Your task to perform on an android device: open app "Cash App" Image 0: 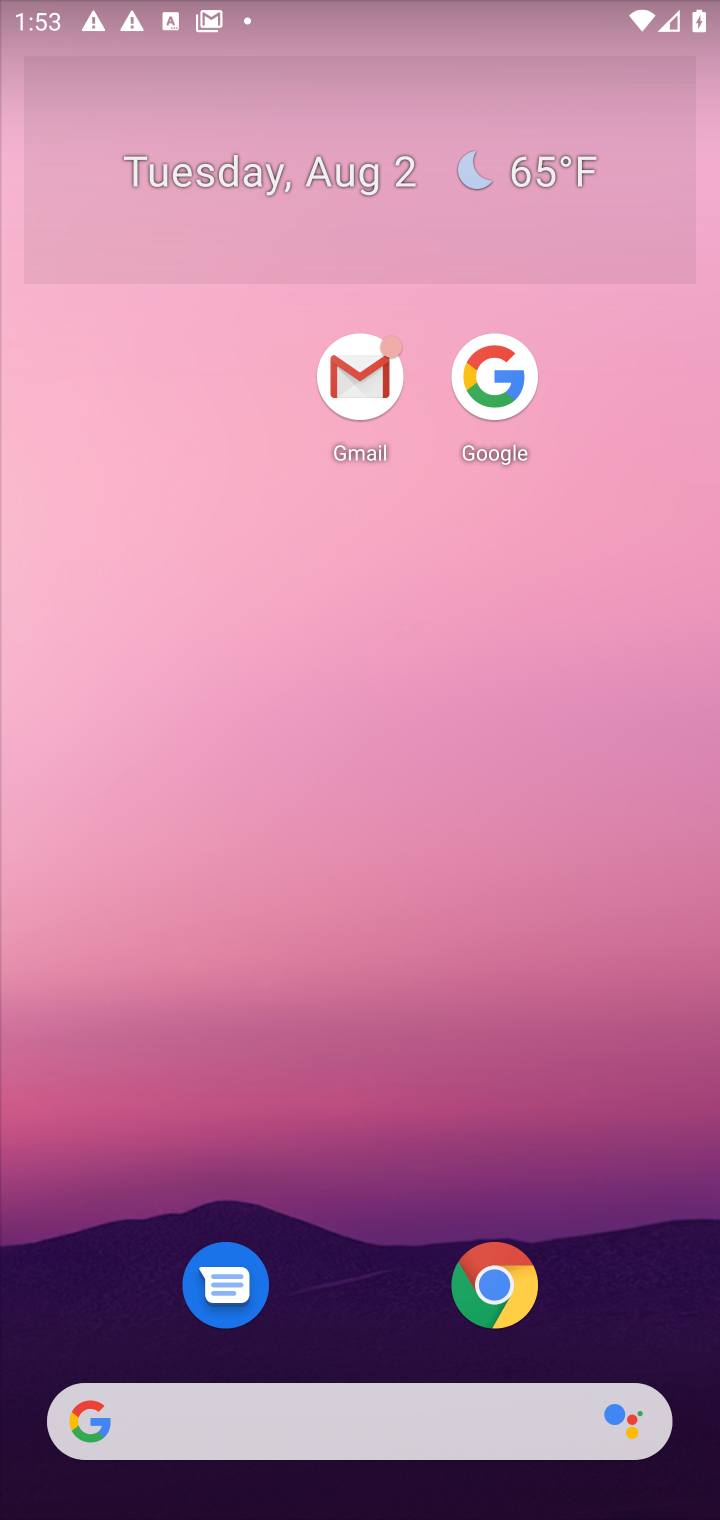
Step 0: drag from (655, 1305) to (439, 351)
Your task to perform on an android device: open app "Cash App" Image 1: 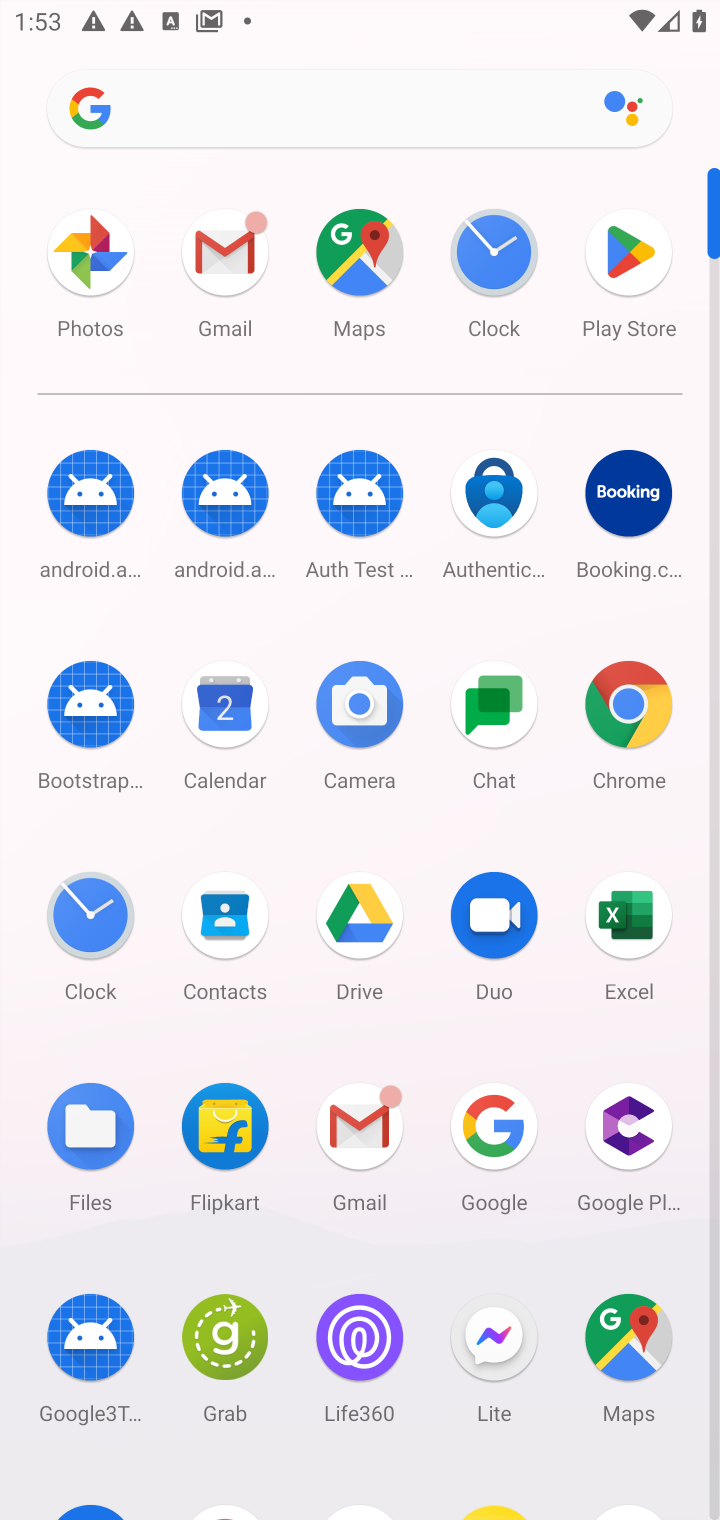
Step 1: drag from (287, 1234) to (341, 478)
Your task to perform on an android device: open app "Cash App" Image 2: 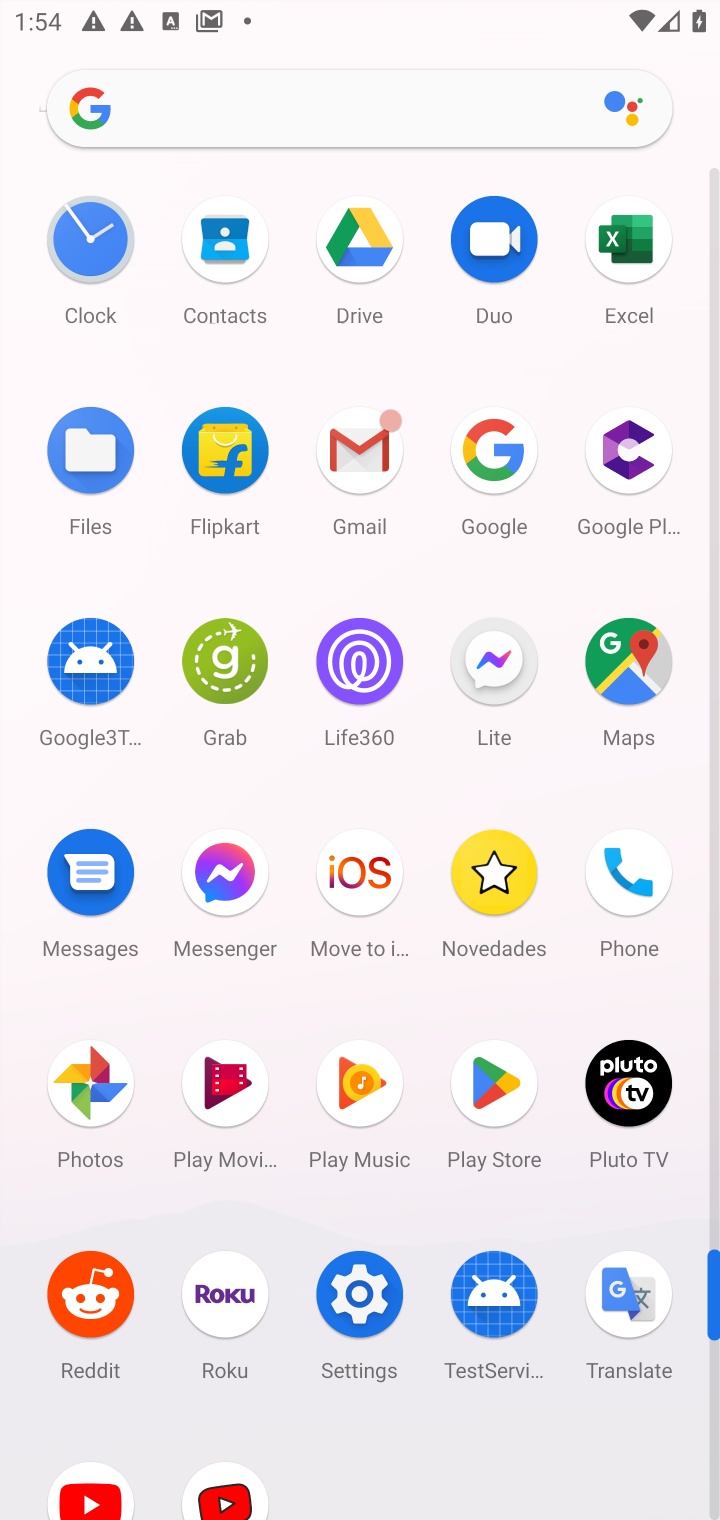
Step 2: click (481, 1070)
Your task to perform on an android device: open app "Cash App" Image 3: 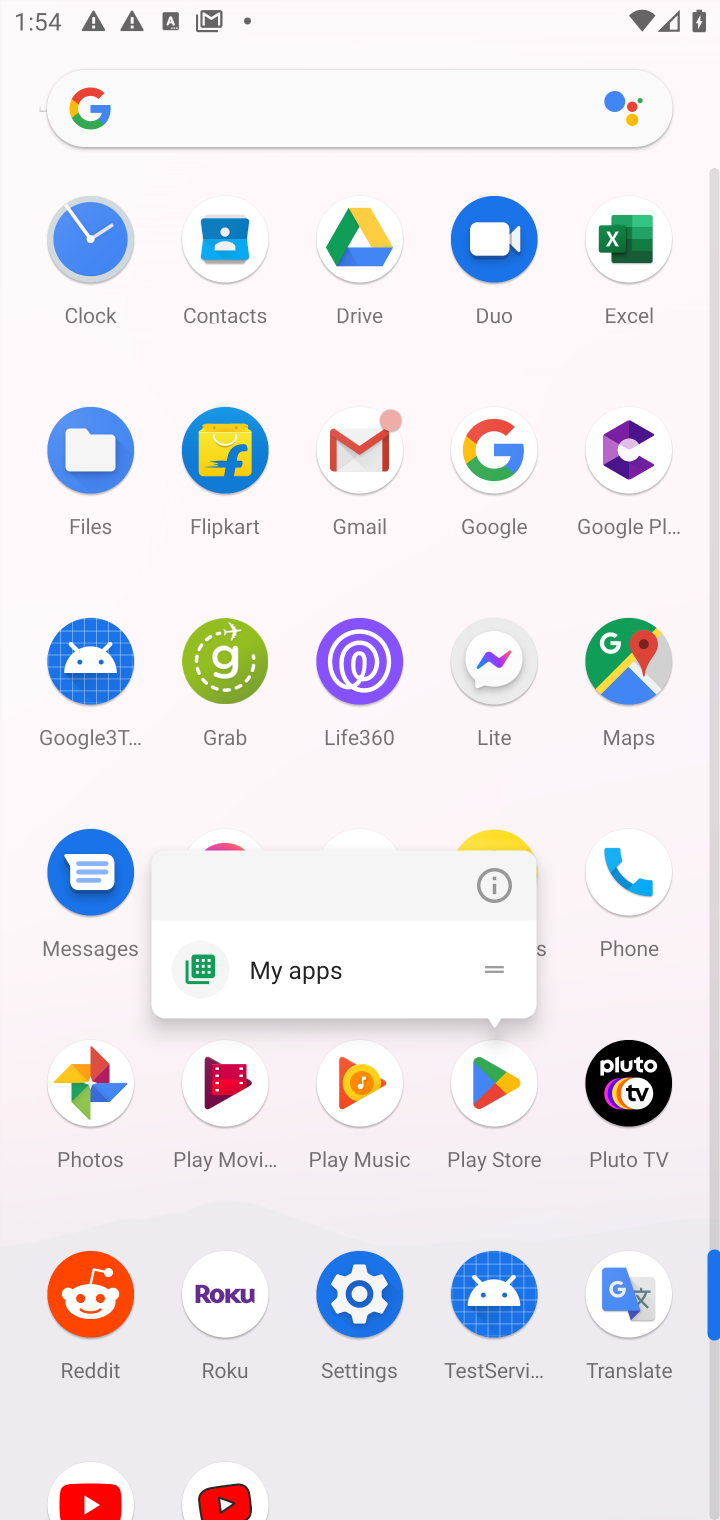
Step 3: click (472, 1079)
Your task to perform on an android device: open app "Cash App" Image 4: 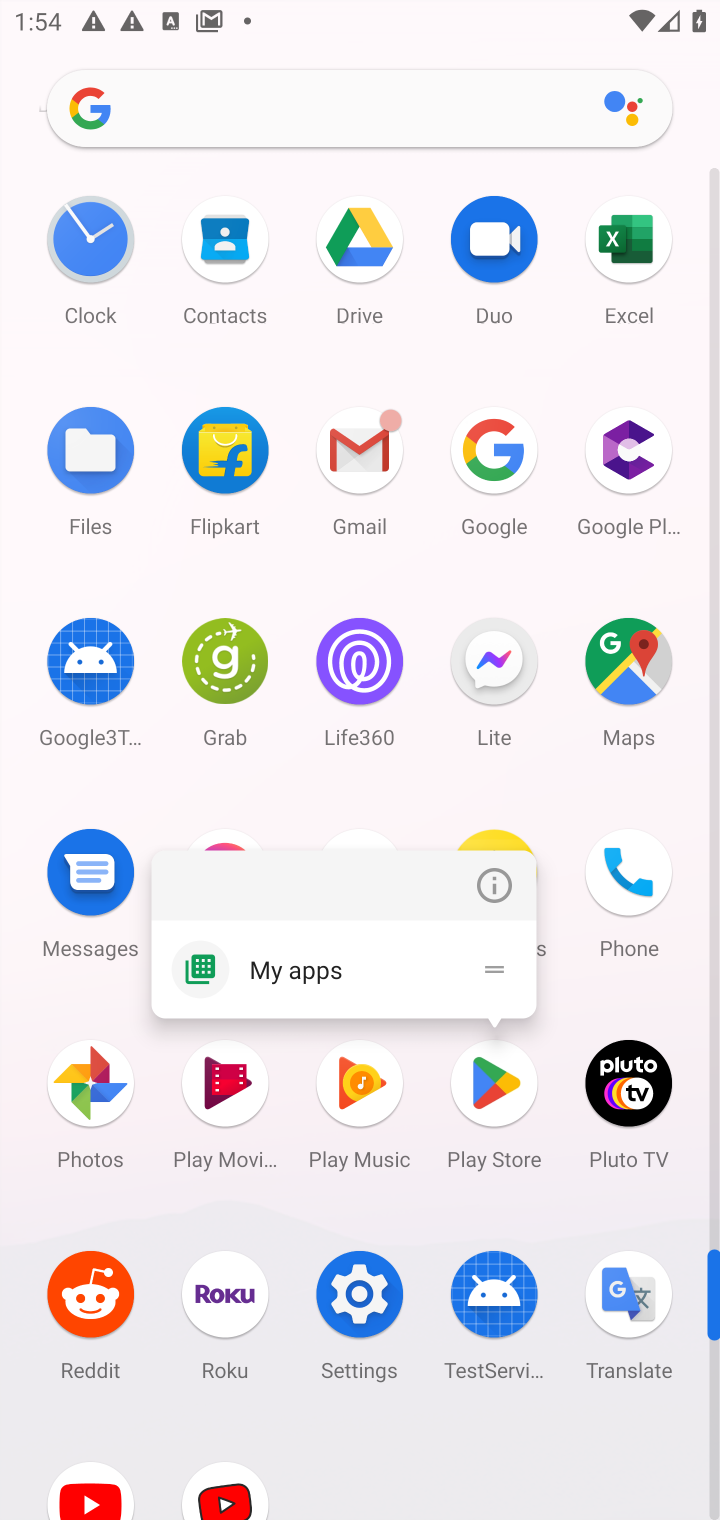
Step 4: click (492, 1088)
Your task to perform on an android device: open app "Cash App" Image 5: 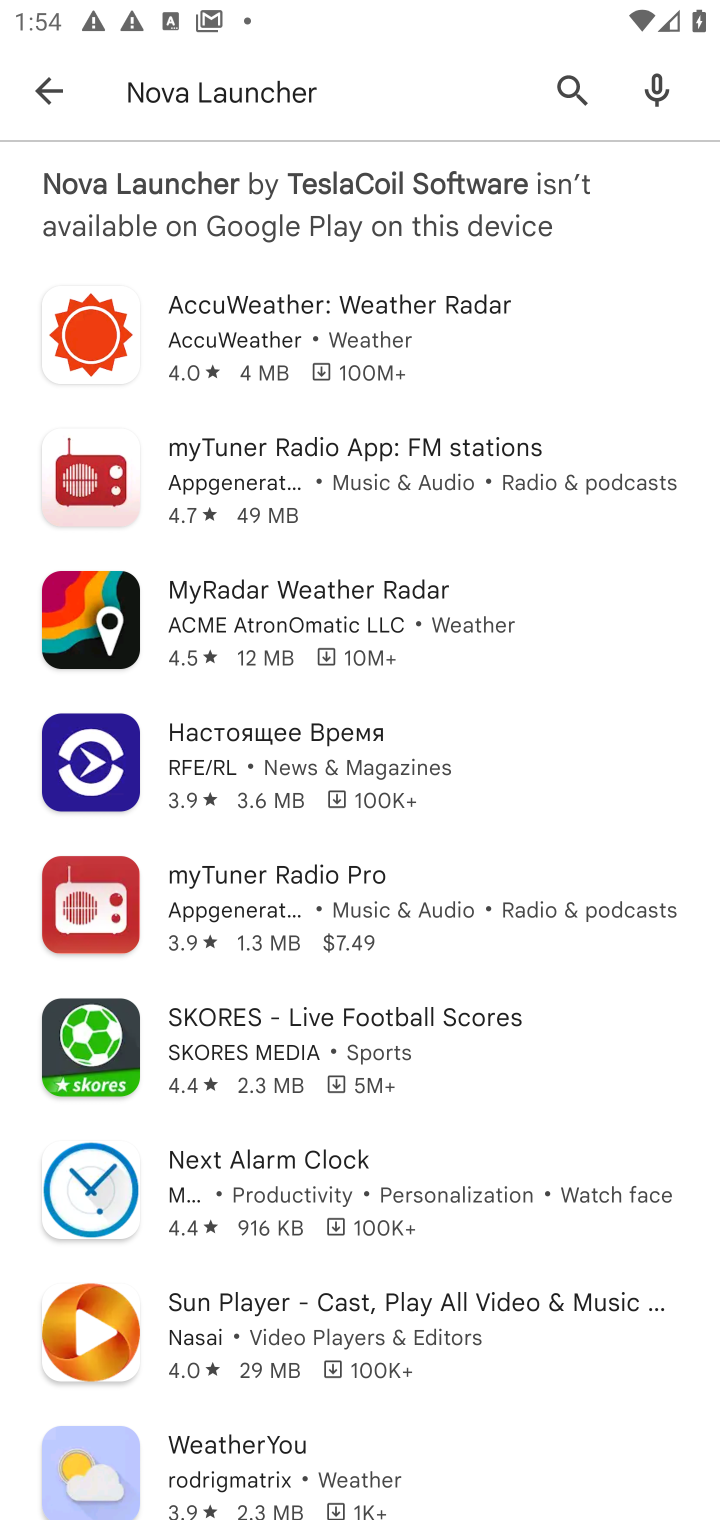
Step 5: click (360, 45)
Your task to perform on an android device: open app "Cash App" Image 6: 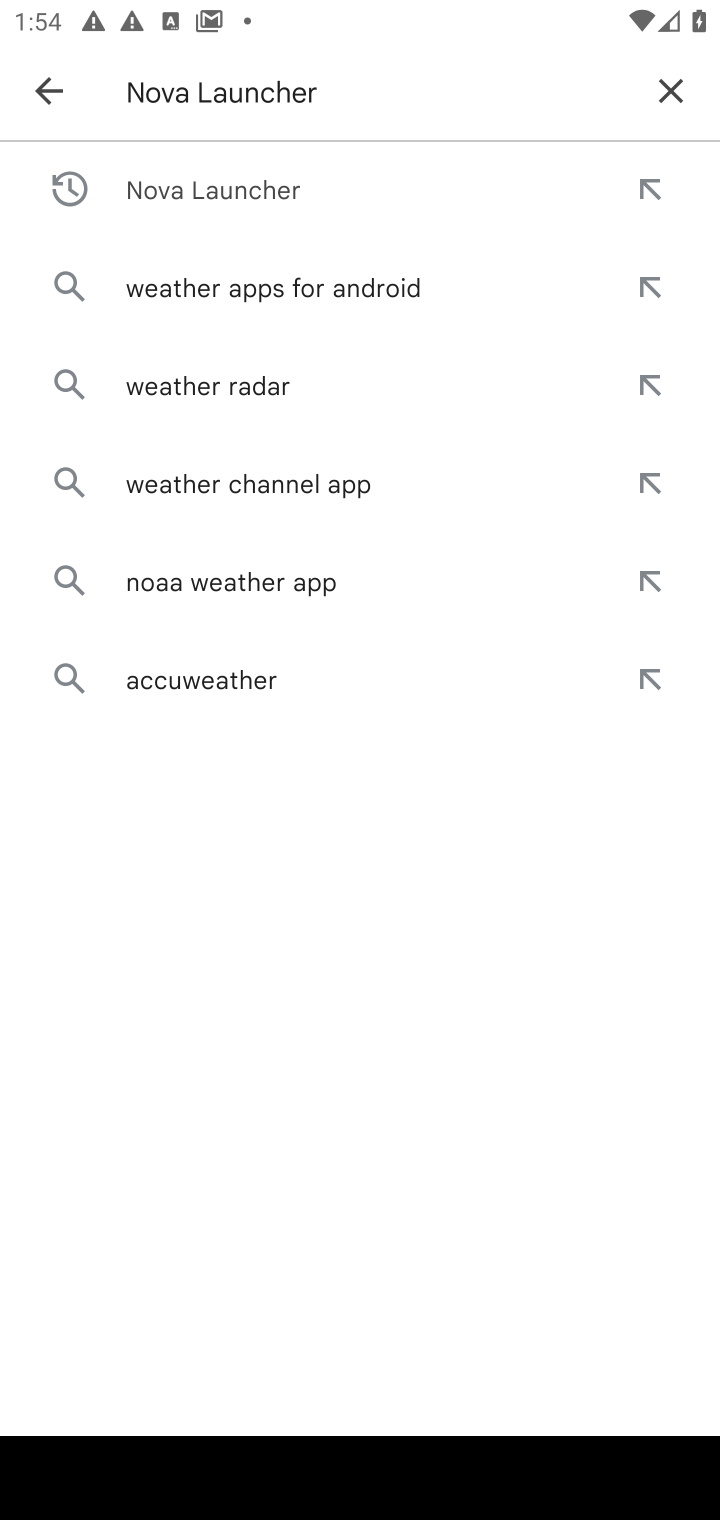
Step 6: click (693, 78)
Your task to perform on an android device: open app "Cash App" Image 7: 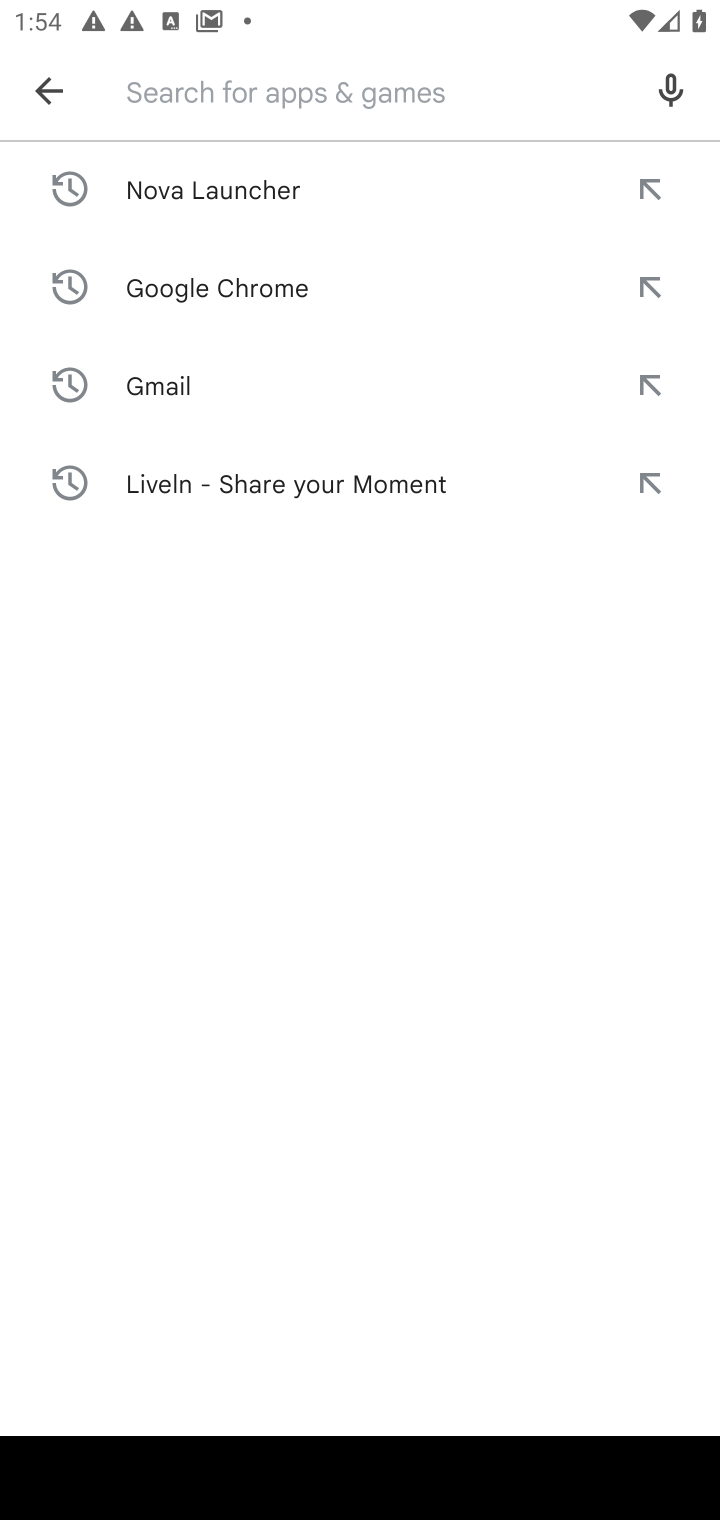
Step 7: type "Cash App"
Your task to perform on an android device: open app "Cash App" Image 8: 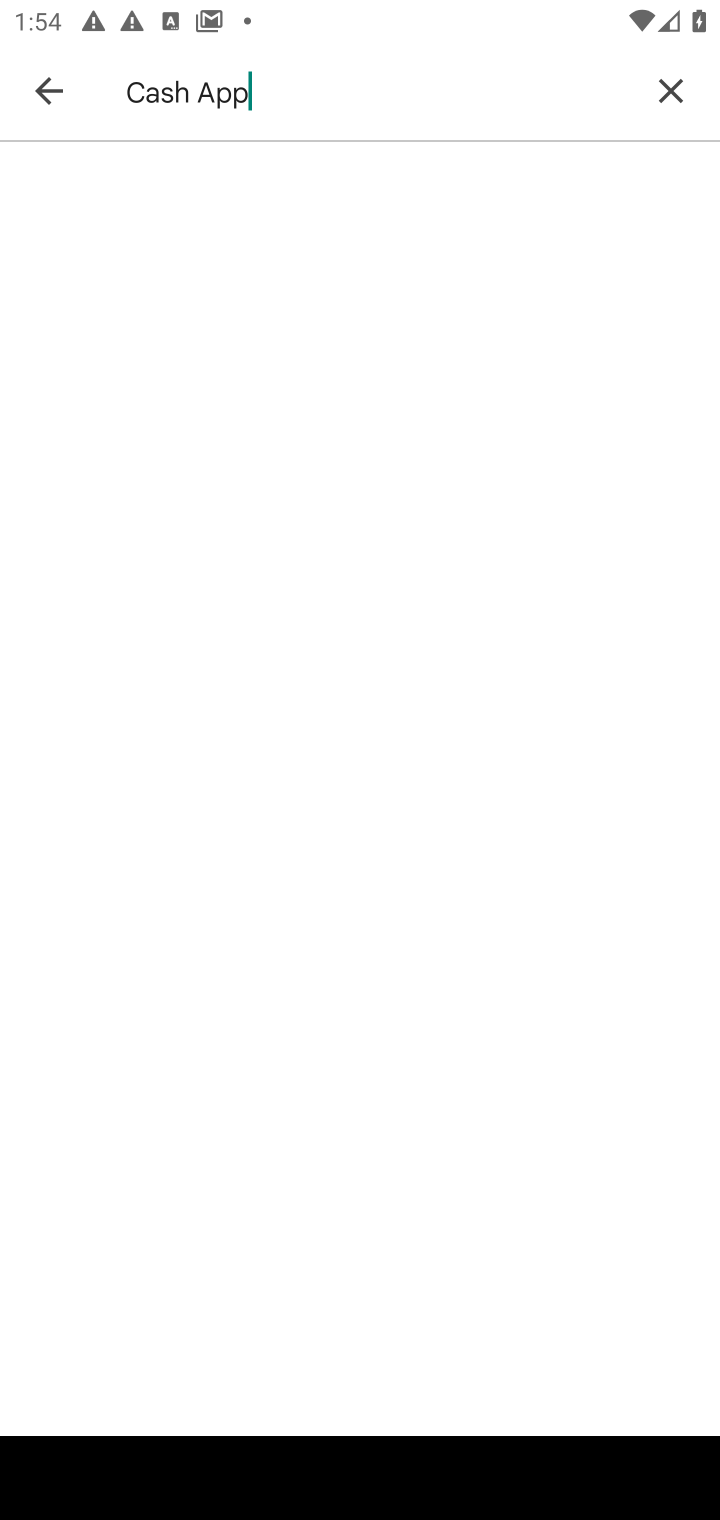
Step 8: press enter
Your task to perform on an android device: open app "Cash App" Image 9: 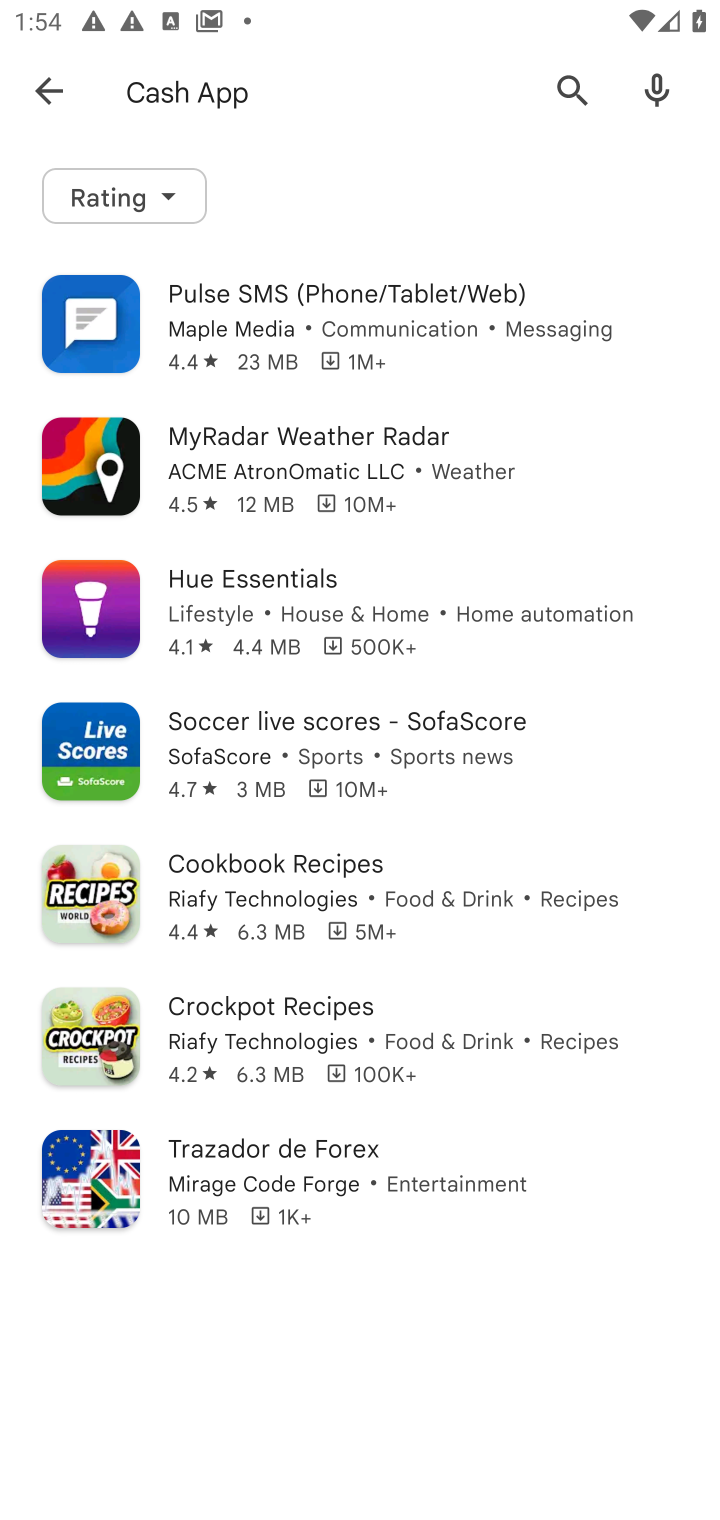
Step 9: task complete